Your task to perform on an android device: turn on airplane mode Image 0: 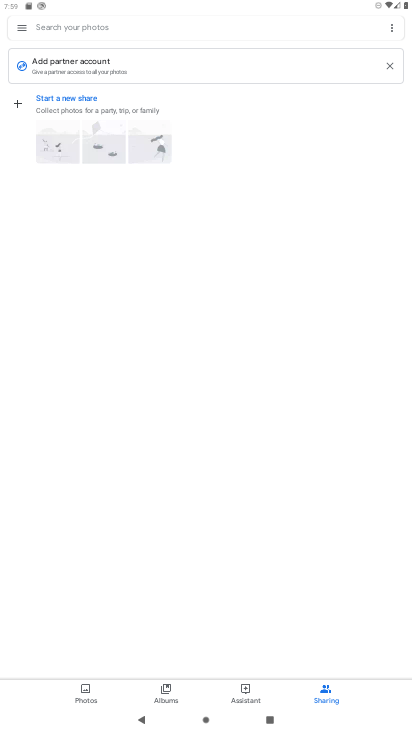
Step 0: press home button
Your task to perform on an android device: turn on airplane mode Image 1: 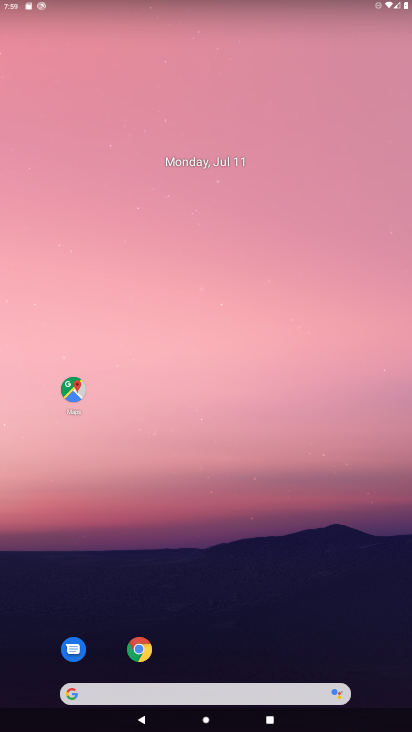
Step 1: drag from (224, 692) to (275, 117)
Your task to perform on an android device: turn on airplane mode Image 2: 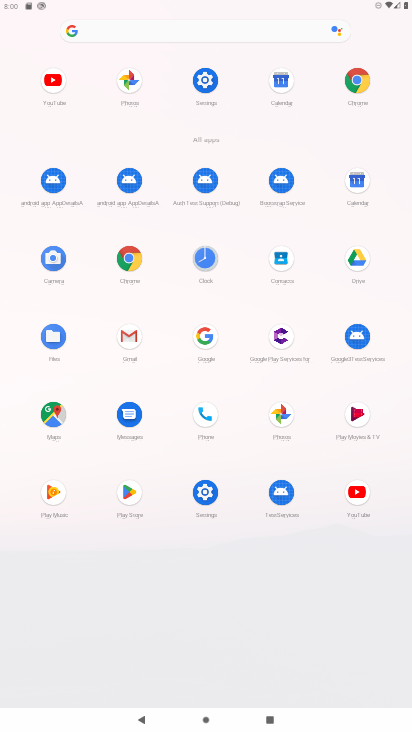
Step 2: click (205, 80)
Your task to perform on an android device: turn on airplane mode Image 3: 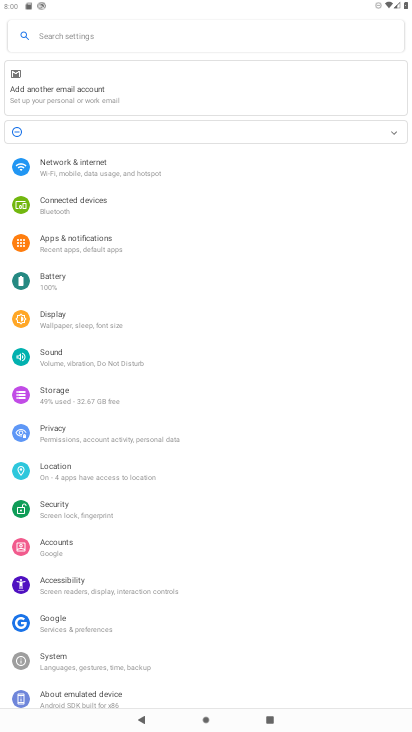
Step 3: click (82, 175)
Your task to perform on an android device: turn on airplane mode Image 4: 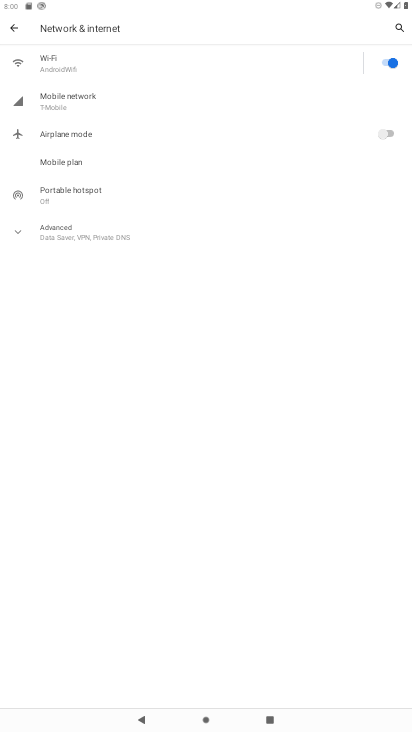
Step 4: click (385, 131)
Your task to perform on an android device: turn on airplane mode Image 5: 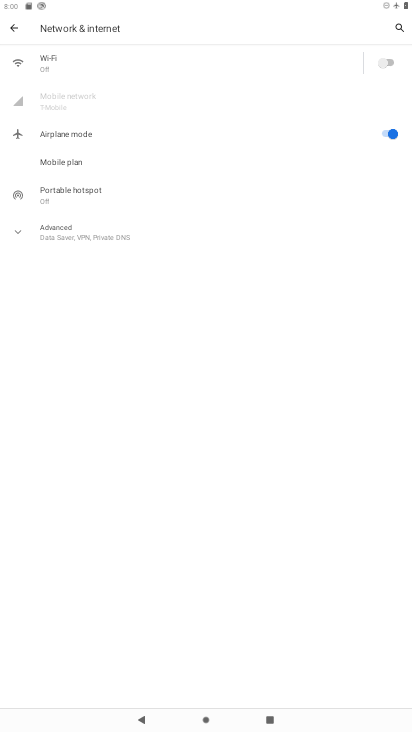
Step 5: task complete